Your task to perform on an android device: toggle location history Image 0: 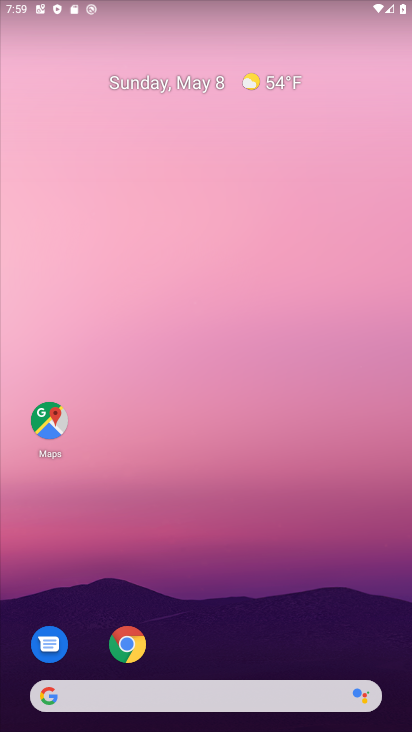
Step 0: drag from (199, 667) to (258, 257)
Your task to perform on an android device: toggle location history Image 1: 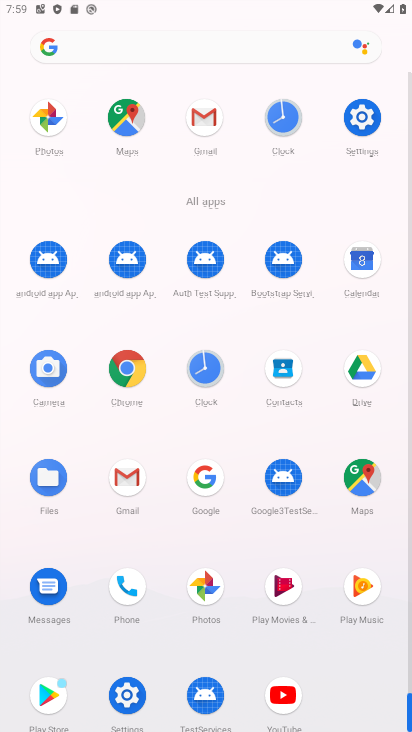
Step 1: click (380, 122)
Your task to perform on an android device: toggle location history Image 2: 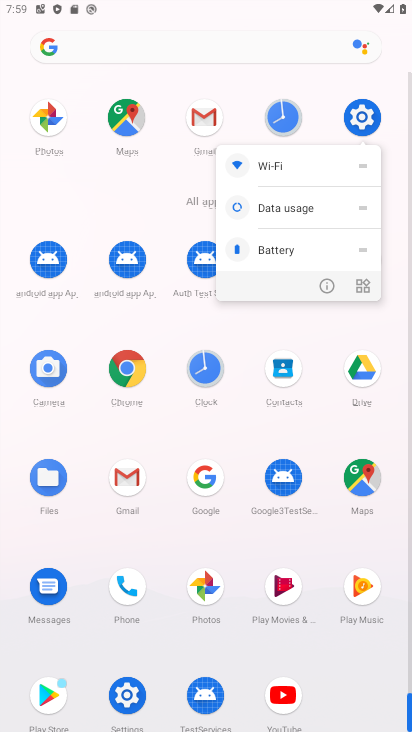
Step 2: click (321, 287)
Your task to perform on an android device: toggle location history Image 3: 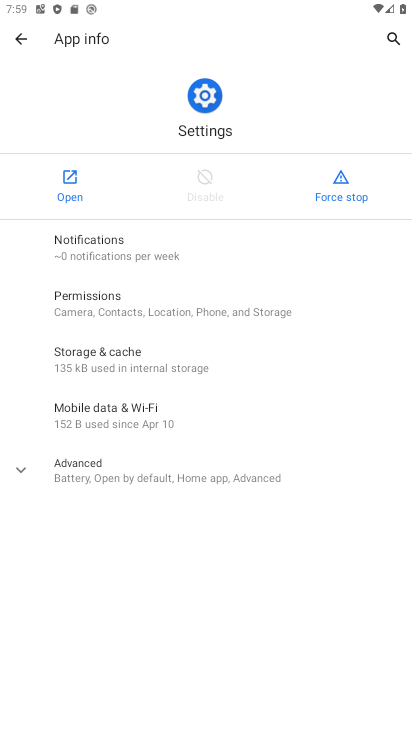
Step 3: click (81, 187)
Your task to perform on an android device: toggle location history Image 4: 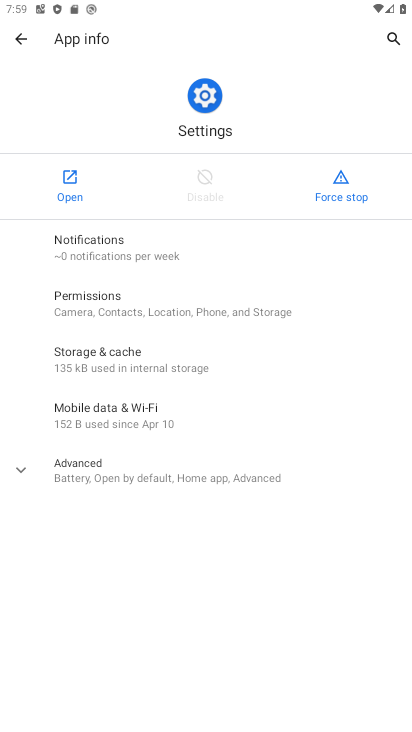
Step 4: click (81, 187)
Your task to perform on an android device: toggle location history Image 5: 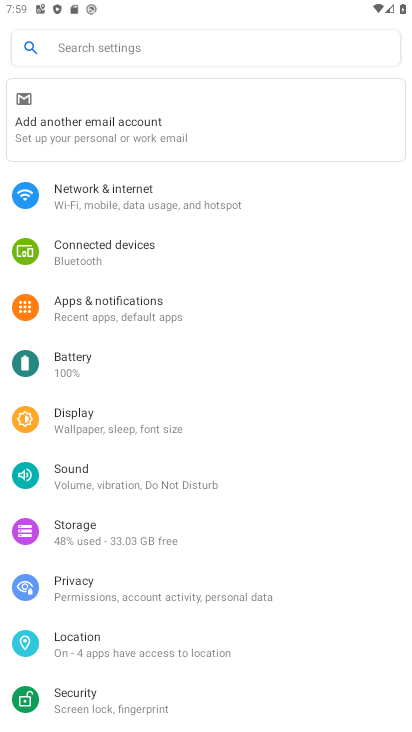
Step 5: drag from (148, 709) to (166, 328)
Your task to perform on an android device: toggle location history Image 6: 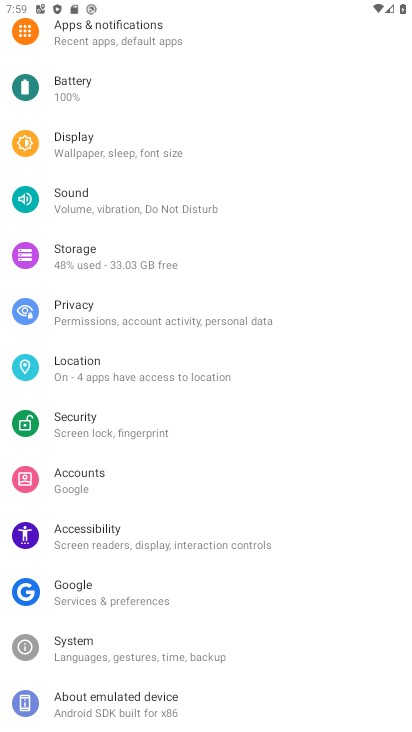
Step 6: click (127, 375)
Your task to perform on an android device: toggle location history Image 7: 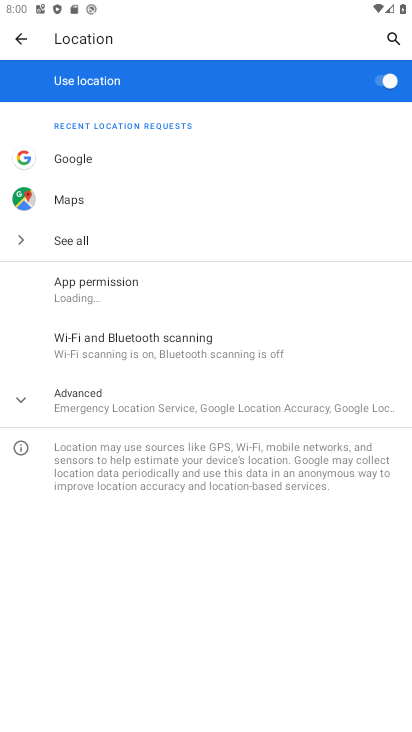
Step 7: click (143, 389)
Your task to perform on an android device: toggle location history Image 8: 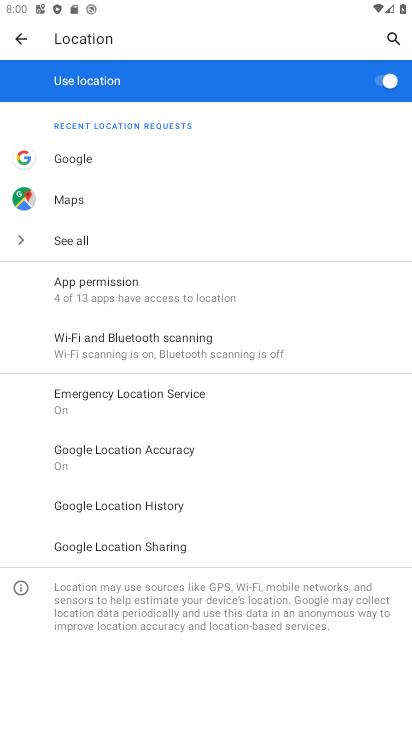
Step 8: drag from (168, 505) to (270, 135)
Your task to perform on an android device: toggle location history Image 9: 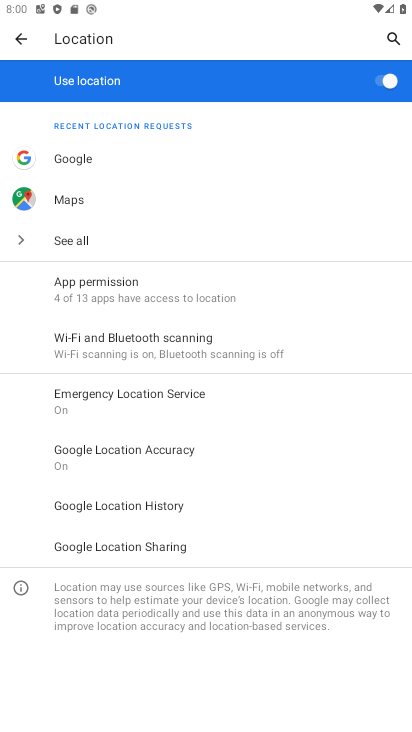
Step 9: click (200, 511)
Your task to perform on an android device: toggle location history Image 10: 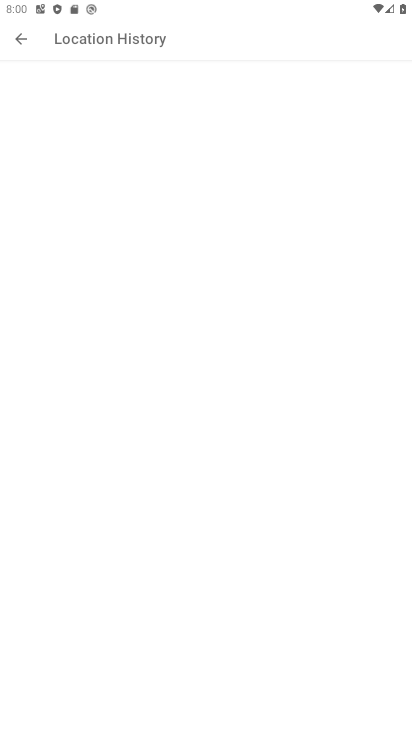
Step 10: drag from (199, 511) to (309, 164)
Your task to perform on an android device: toggle location history Image 11: 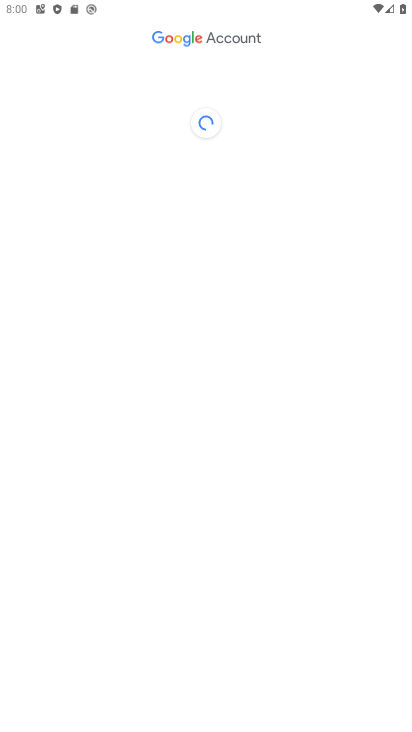
Step 11: drag from (287, 481) to (309, 193)
Your task to perform on an android device: toggle location history Image 12: 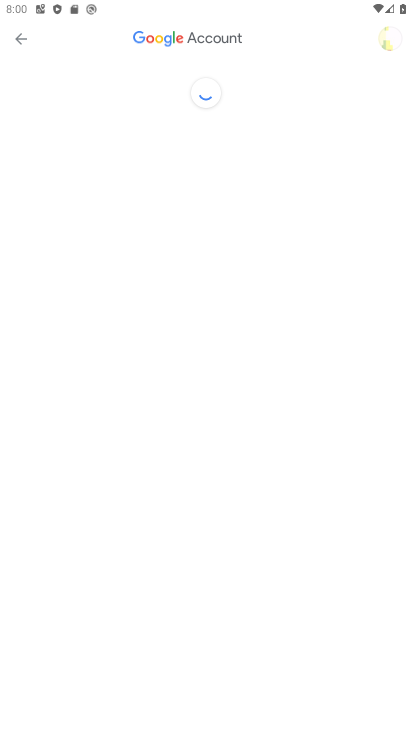
Step 12: drag from (198, 121) to (229, 404)
Your task to perform on an android device: toggle location history Image 13: 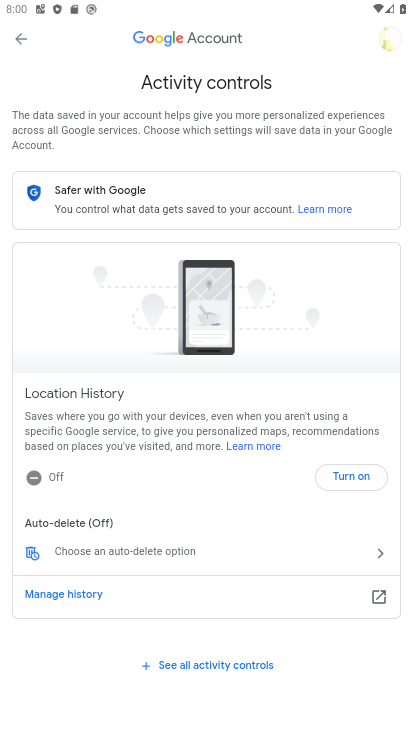
Step 13: drag from (234, 475) to (236, 291)
Your task to perform on an android device: toggle location history Image 14: 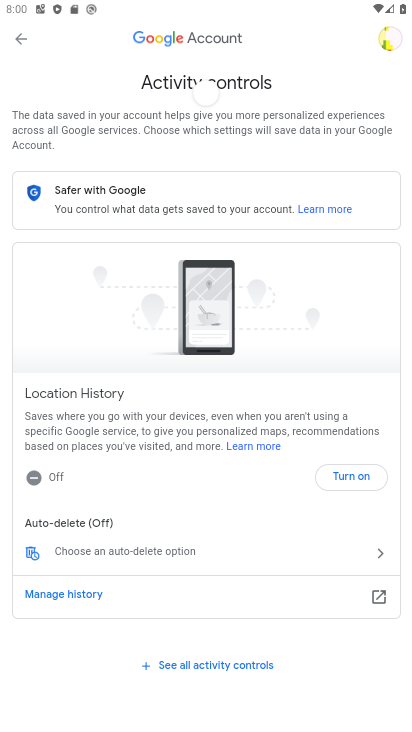
Step 14: drag from (225, 243) to (242, 439)
Your task to perform on an android device: toggle location history Image 15: 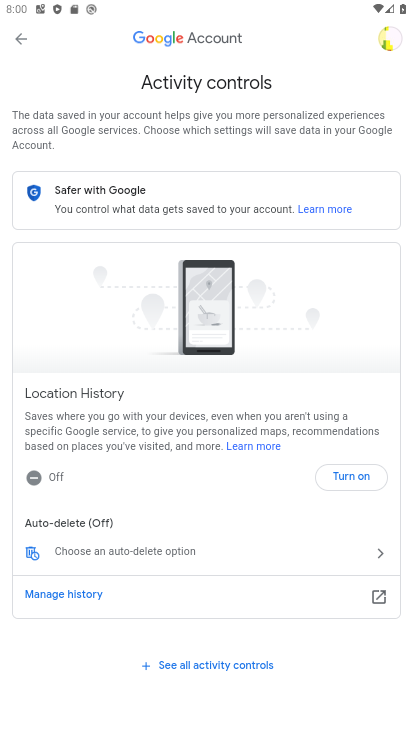
Step 15: click (362, 477)
Your task to perform on an android device: toggle location history Image 16: 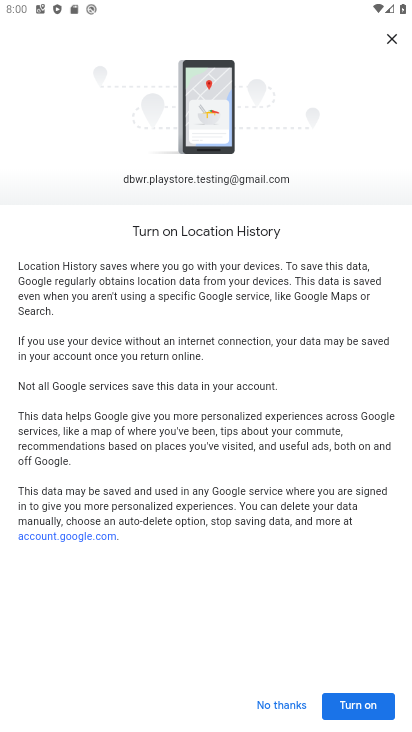
Step 16: click (336, 710)
Your task to perform on an android device: toggle location history Image 17: 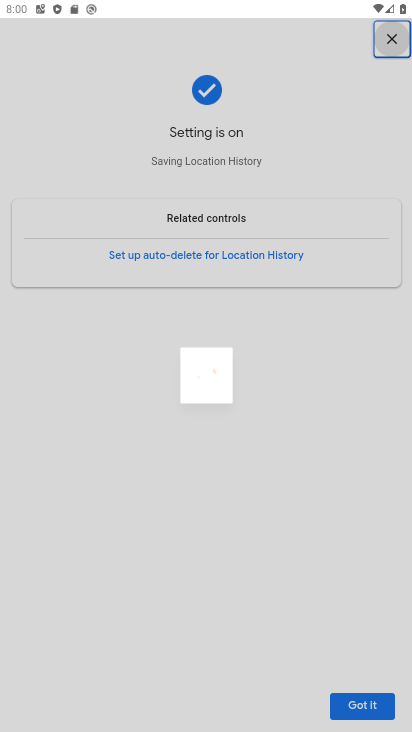
Step 17: task complete